Your task to perform on an android device: check data usage Image 0: 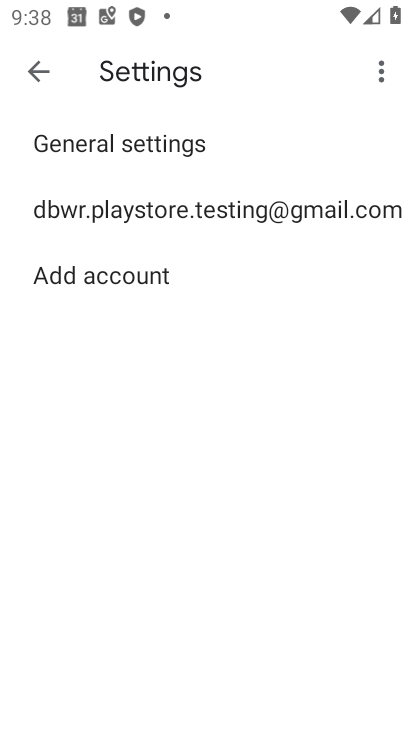
Step 0: press home button
Your task to perform on an android device: check data usage Image 1: 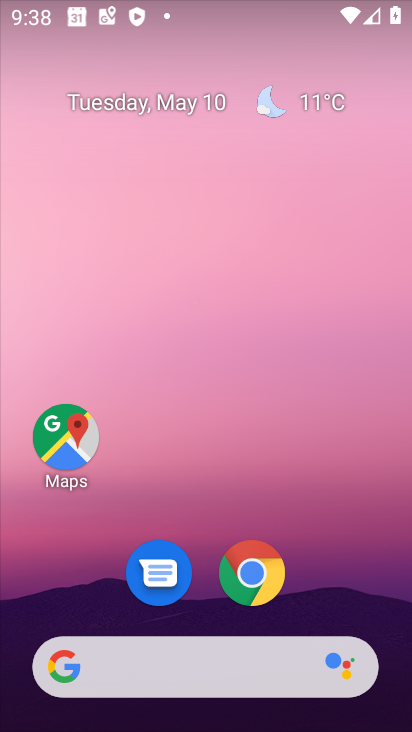
Step 1: drag from (349, 600) to (383, 0)
Your task to perform on an android device: check data usage Image 2: 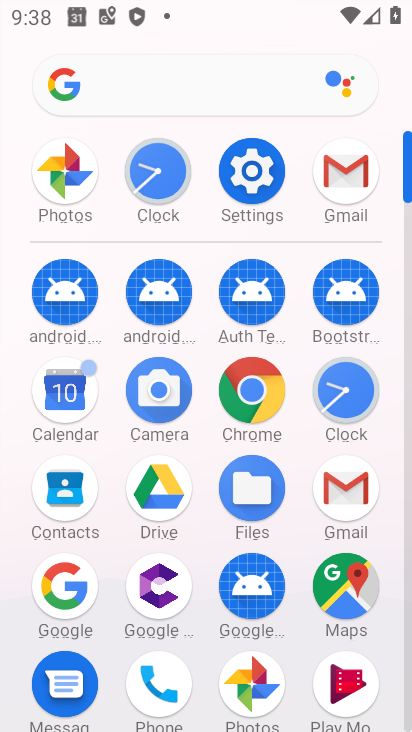
Step 2: click (248, 175)
Your task to perform on an android device: check data usage Image 3: 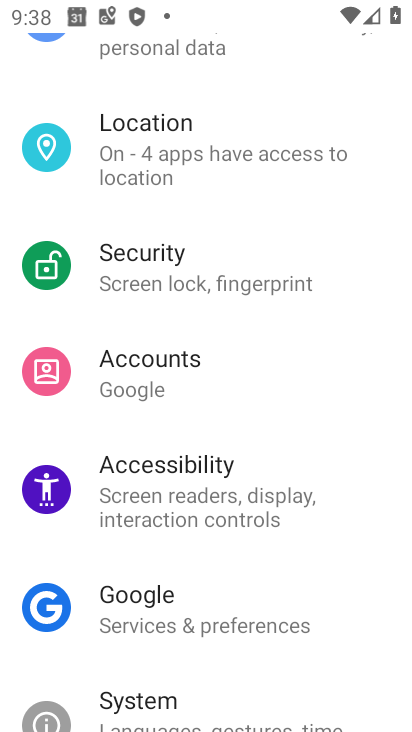
Step 3: drag from (369, 211) to (347, 593)
Your task to perform on an android device: check data usage Image 4: 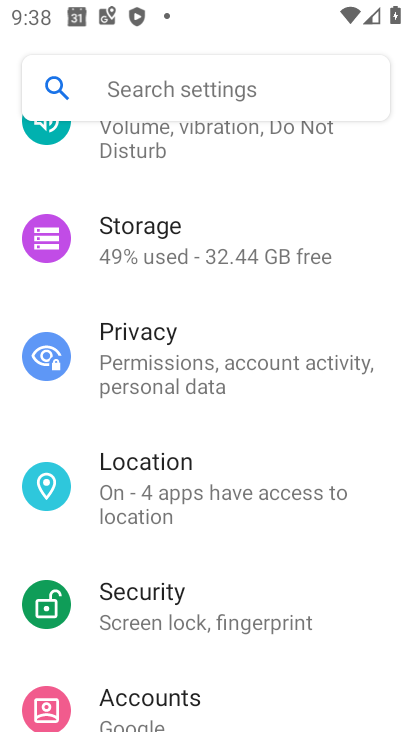
Step 4: drag from (369, 237) to (337, 625)
Your task to perform on an android device: check data usage Image 5: 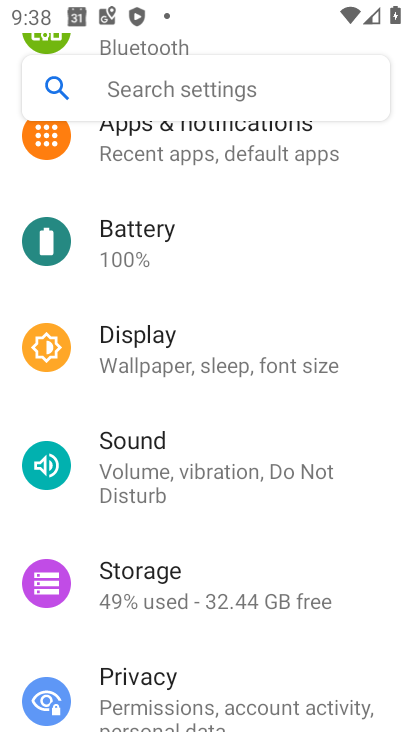
Step 5: drag from (338, 232) to (323, 608)
Your task to perform on an android device: check data usage Image 6: 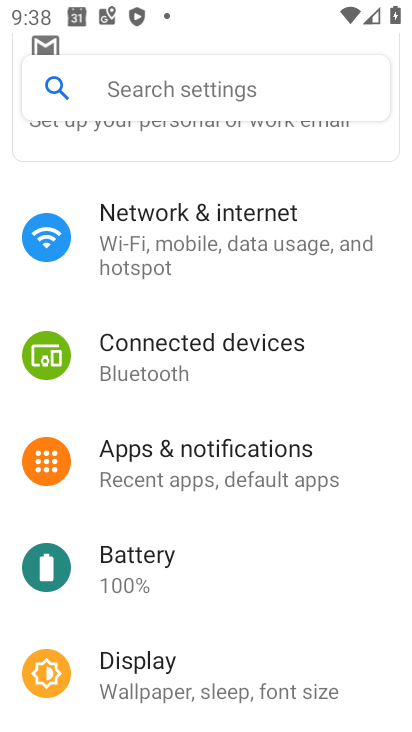
Step 6: click (152, 253)
Your task to perform on an android device: check data usage Image 7: 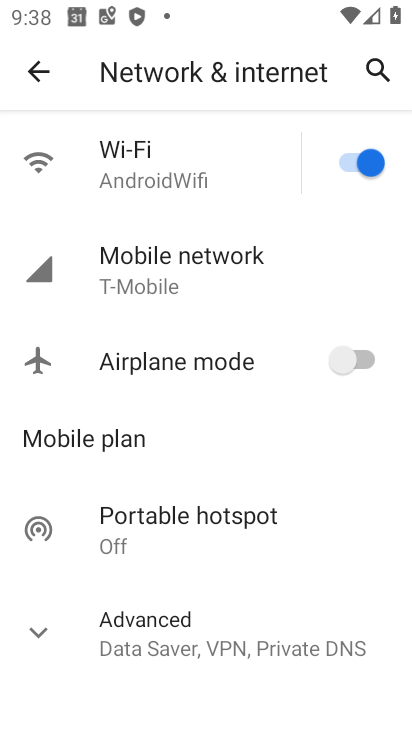
Step 7: click (150, 258)
Your task to perform on an android device: check data usage Image 8: 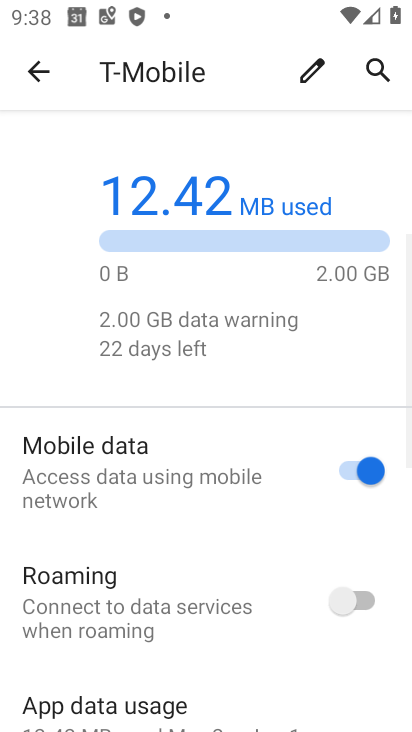
Step 8: drag from (69, 613) to (96, 271)
Your task to perform on an android device: check data usage Image 9: 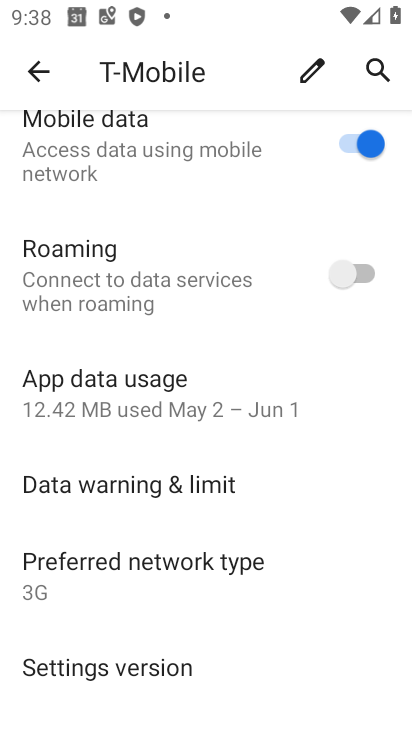
Step 9: click (90, 405)
Your task to perform on an android device: check data usage Image 10: 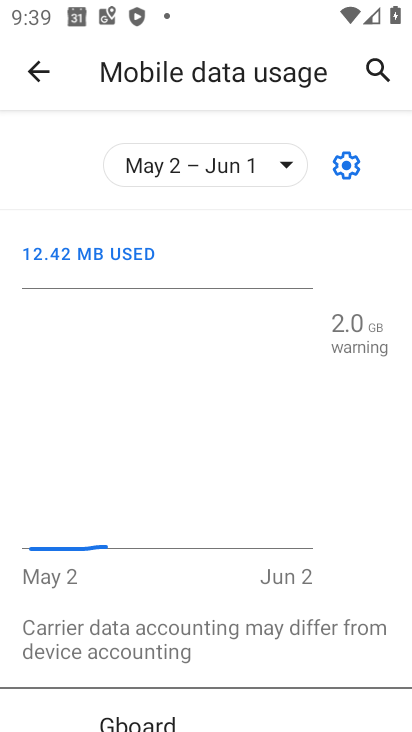
Step 10: task complete